Your task to perform on an android device: turn on priority inbox in the gmail app Image 0: 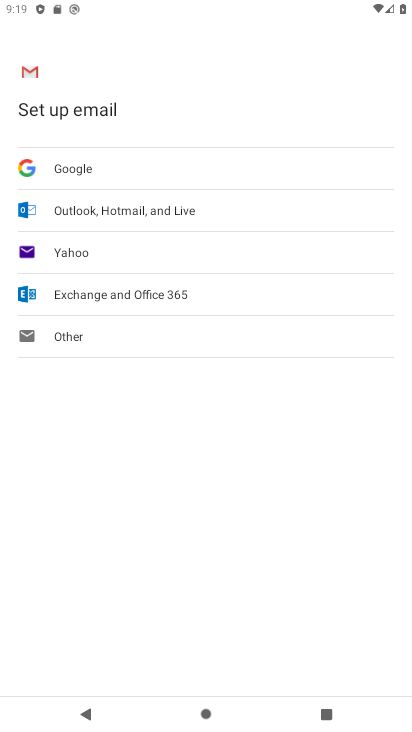
Step 0: press home button
Your task to perform on an android device: turn on priority inbox in the gmail app Image 1: 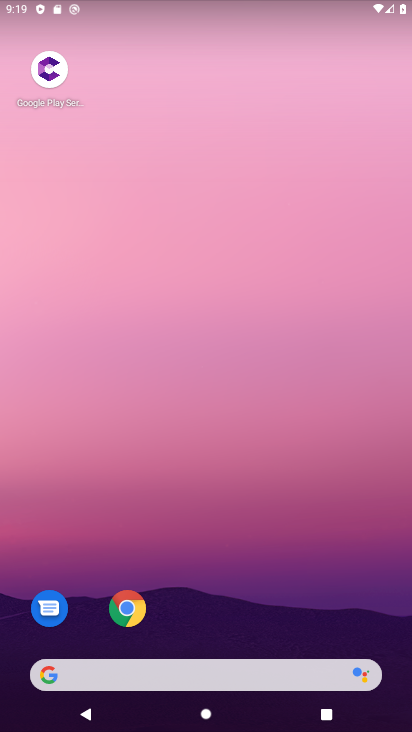
Step 1: drag from (237, 672) to (218, 243)
Your task to perform on an android device: turn on priority inbox in the gmail app Image 2: 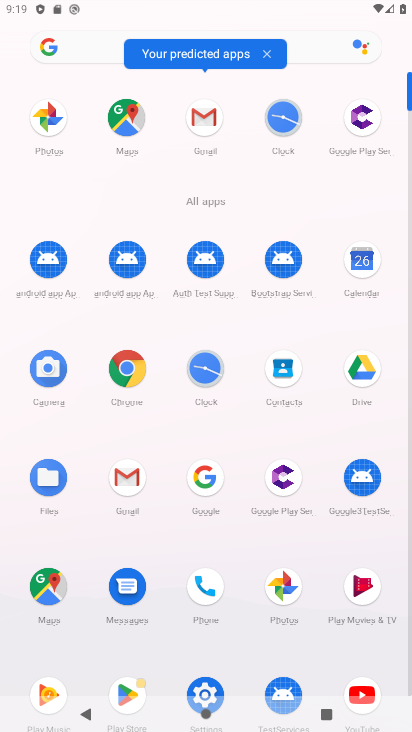
Step 2: click (127, 480)
Your task to perform on an android device: turn on priority inbox in the gmail app Image 3: 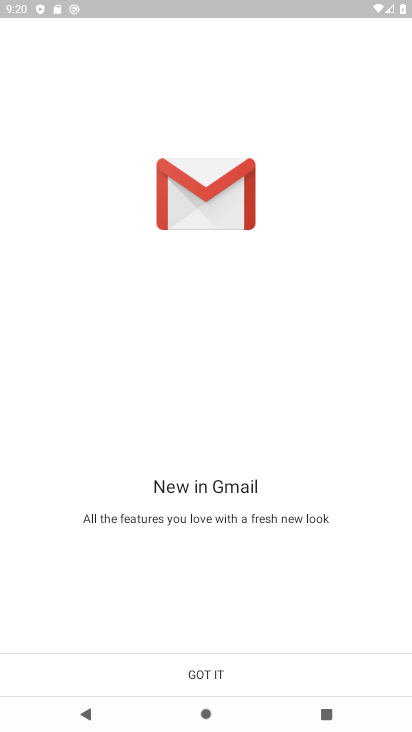
Step 3: click (194, 676)
Your task to perform on an android device: turn on priority inbox in the gmail app Image 4: 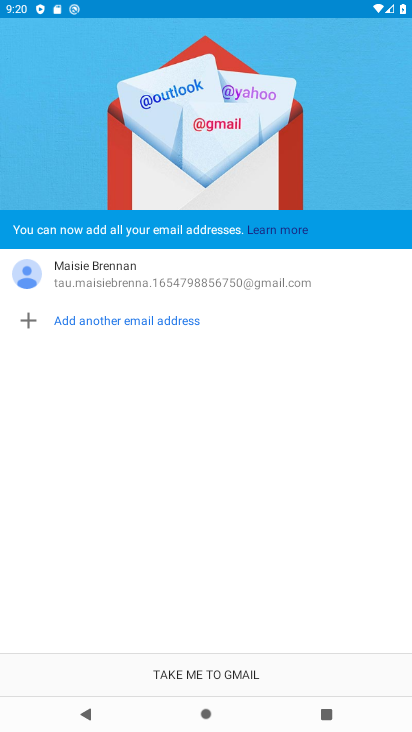
Step 4: click (200, 670)
Your task to perform on an android device: turn on priority inbox in the gmail app Image 5: 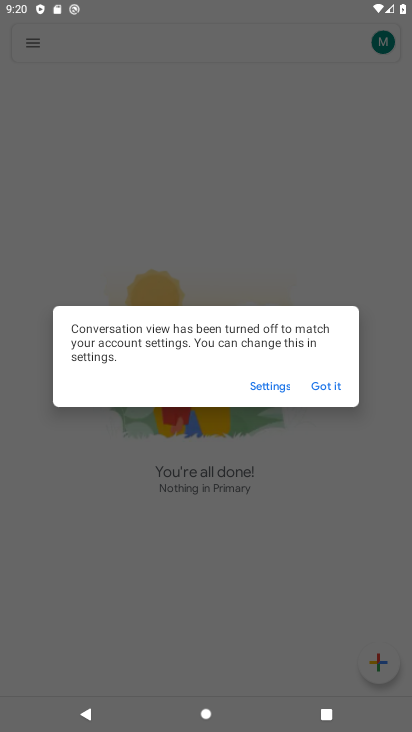
Step 5: click (326, 384)
Your task to perform on an android device: turn on priority inbox in the gmail app Image 6: 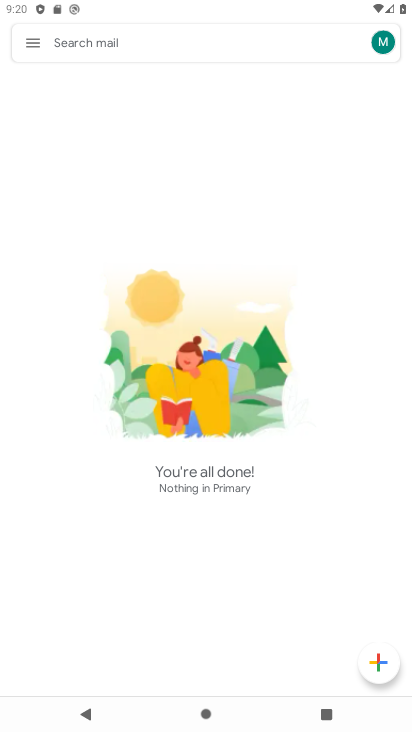
Step 6: click (34, 41)
Your task to perform on an android device: turn on priority inbox in the gmail app Image 7: 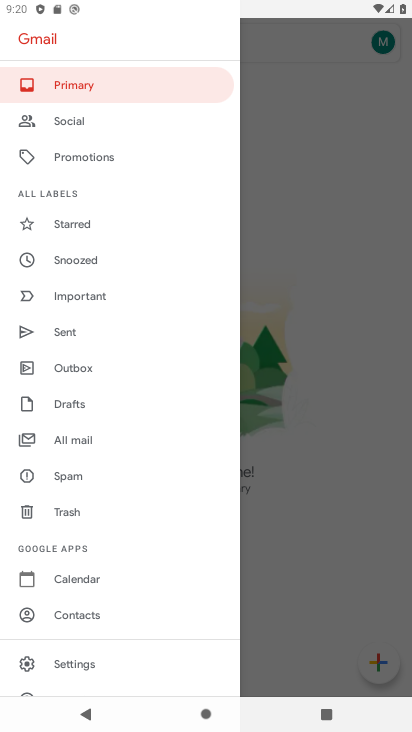
Step 7: click (74, 665)
Your task to perform on an android device: turn on priority inbox in the gmail app Image 8: 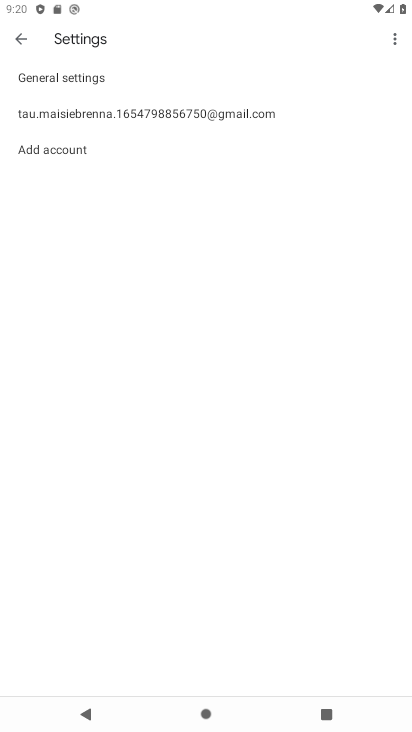
Step 8: click (123, 113)
Your task to perform on an android device: turn on priority inbox in the gmail app Image 9: 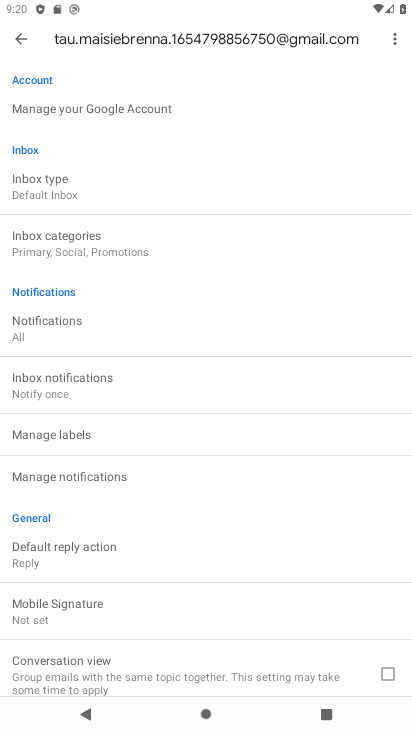
Step 9: click (39, 186)
Your task to perform on an android device: turn on priority inbox in the gmail app Image 10: 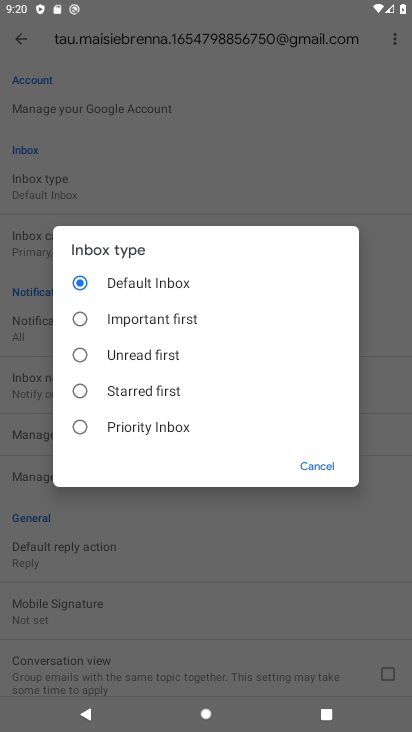
Step 10: click (78, 422)
Your task to perform on an android device: turn on priority inbox in the gmail app Image 11: 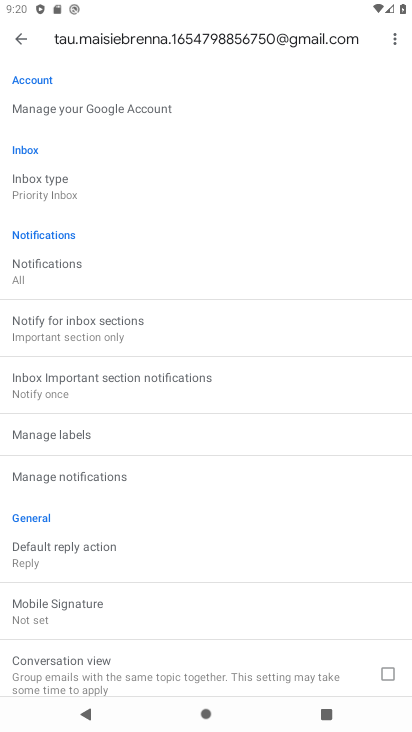
Step 11: task complete